Your task to perform on an android device: check google app version Image 0: 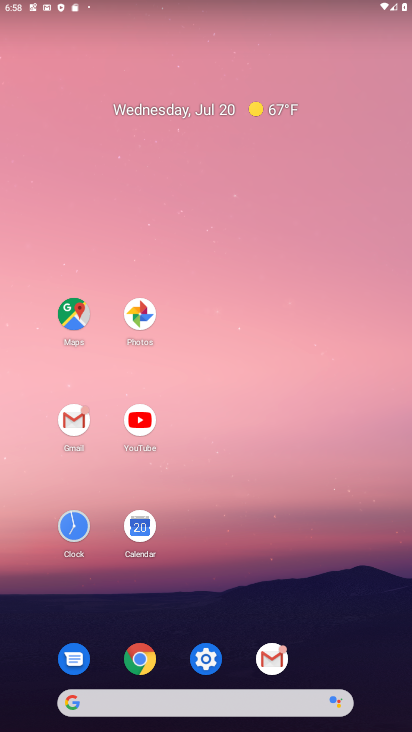
Step 0: click (77, 701)
Your task to perform on an android device: check google app version Image 1: 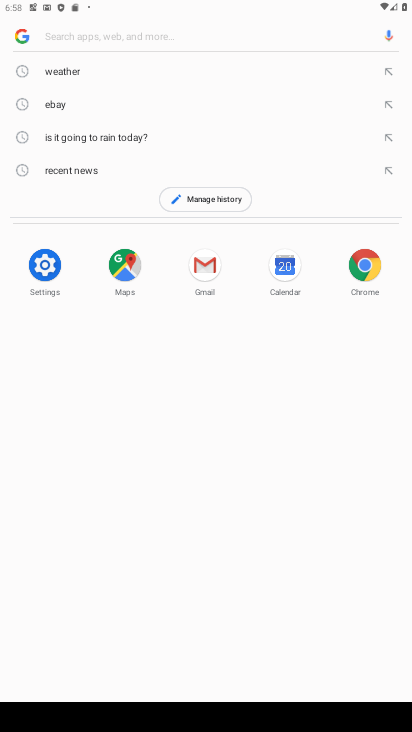
Step 1: click (22, 36)
Your task to perform on an android device: check google app version Image 2: 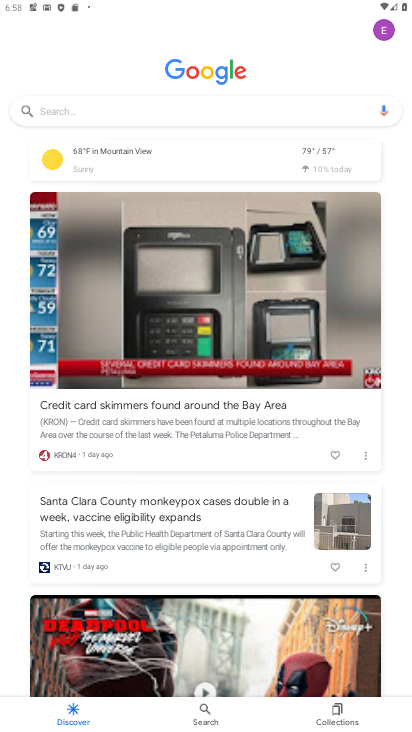
Step 2: click (383, 29)
Your task to perform on an android device: check google app version Image 3: 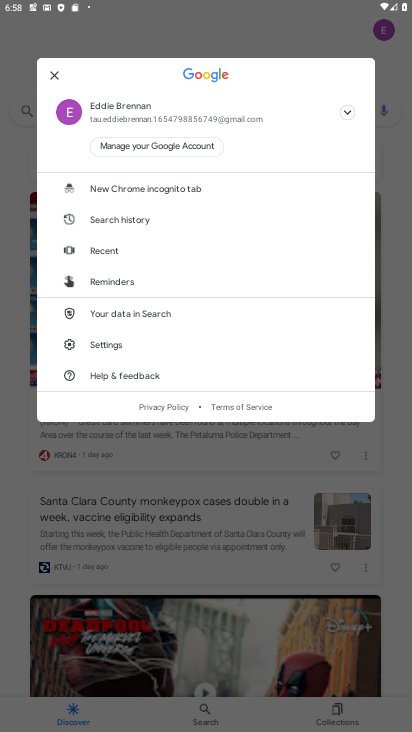
Step 3: click (98, 344)
Your task to perform on an android device: check google app version Image 4: 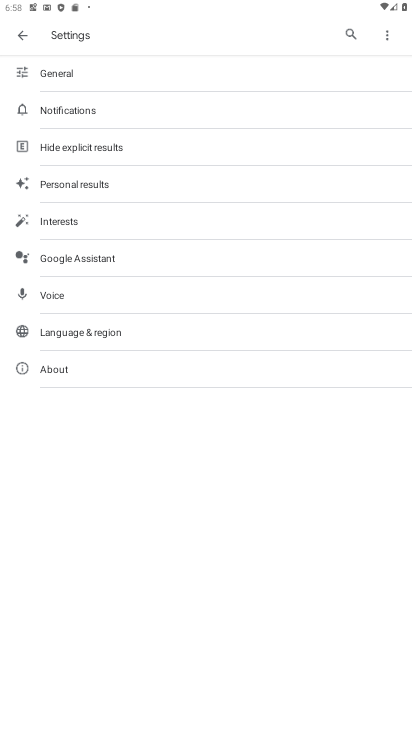
Step 4: click (56, 368)
Your task to perform on an android device: check google app version Image 5: 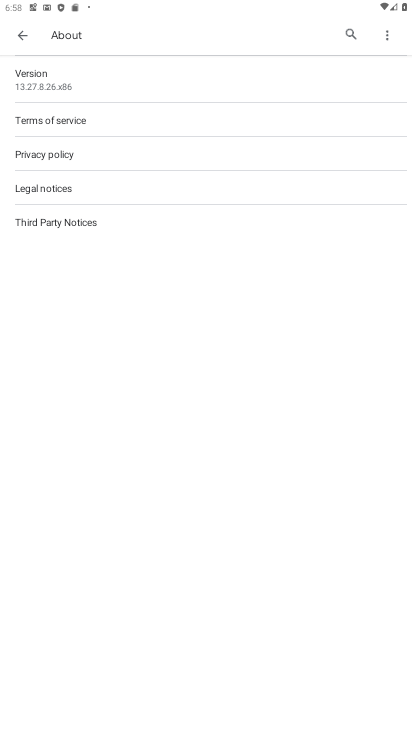
Step 5: task complete